Your task to perform on an android device: clear history in the chrome app Image 0: 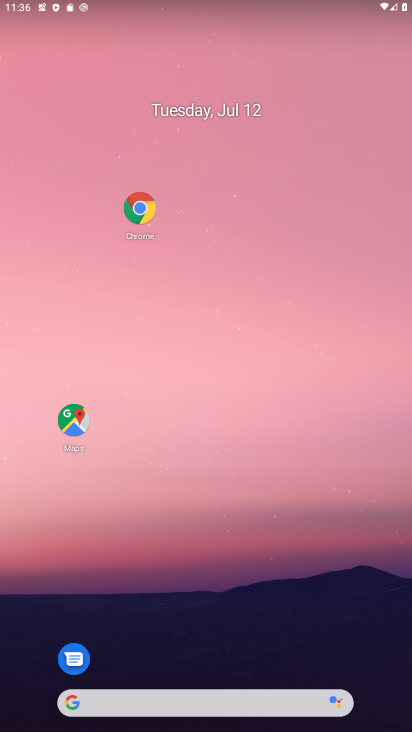
Step 0: drag from (275, 720) to (250, 2)
Your task to perform on an android device: clear history in the chrome app Image 1: 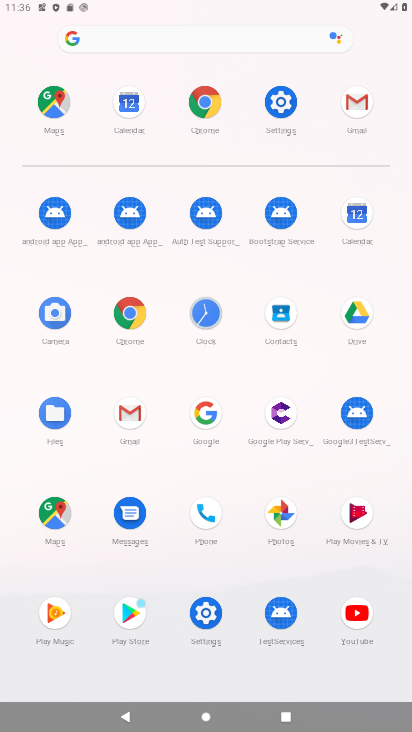
Step 1: click (124, 303)
Your task to perform on an android device: clear history in the chrome app Image 2: 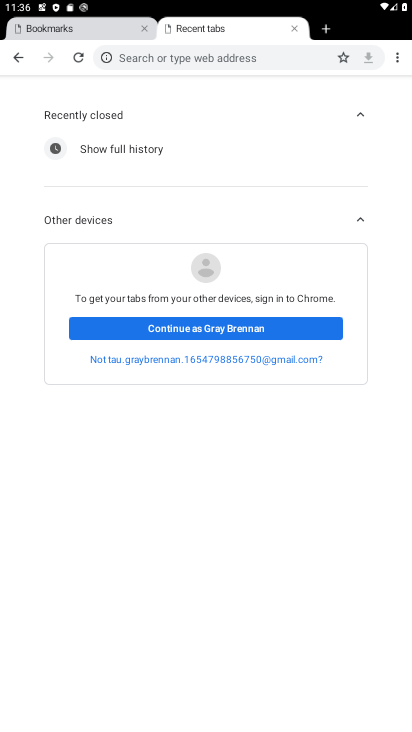
Step 2: drag from (393, 54) to (290, 177)
Your task to perform on an android device: clear history in the chrome app Image 3: 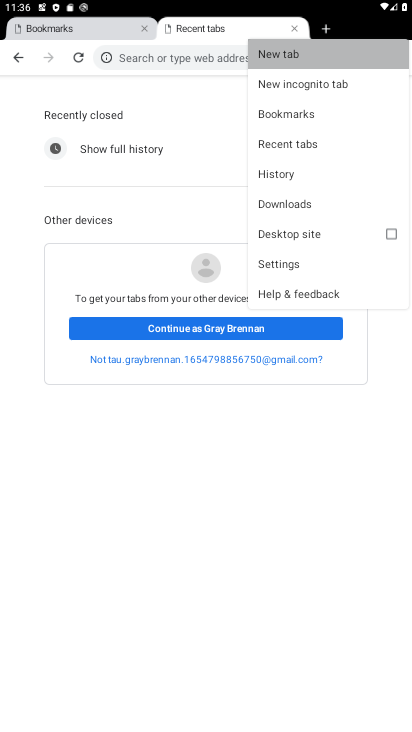
Step 3: drag from (393, 58) to (290, 177)
Your task to perform on an android device: clear history in the chrome app Image 4: 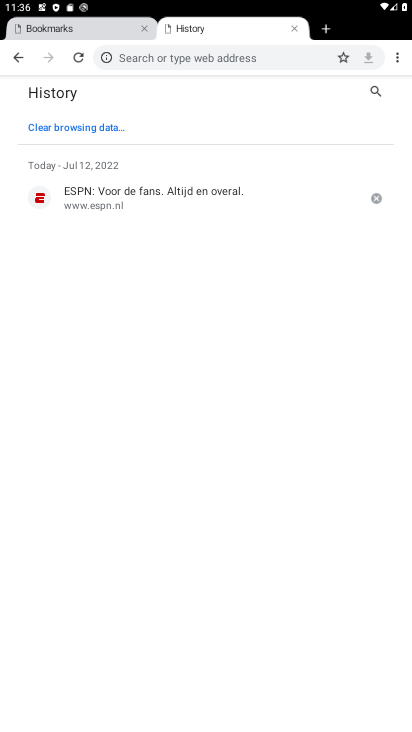
Step 4: click (114, 128)
Your task to perform on an android device: clear history in the chrome app Image 5: 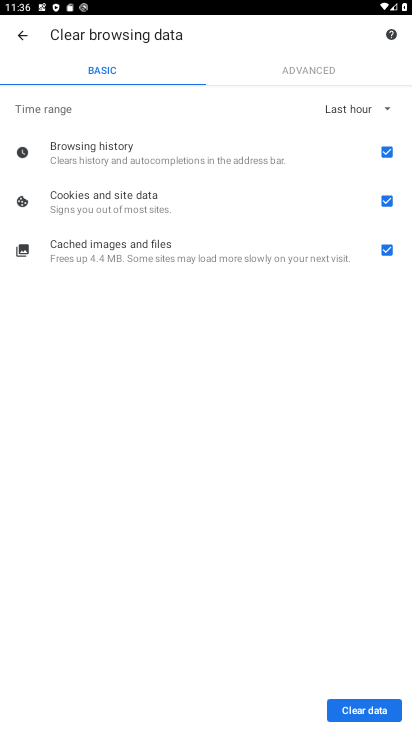
Step 5: click (380, 715)
Your task to perform on an android device: clear history in the chrome app Image 6: 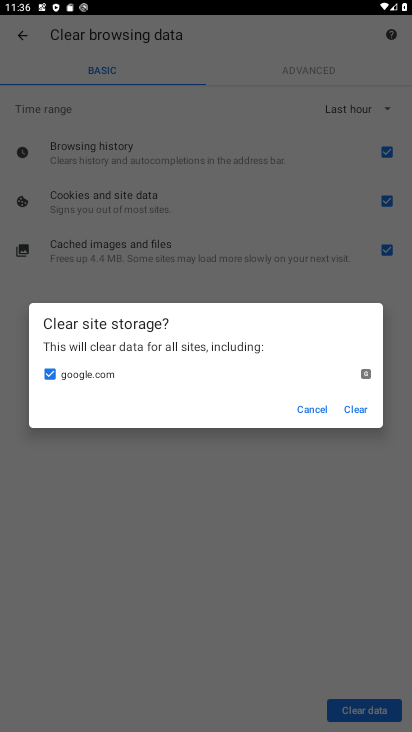
Step 6: click (352, 409)
Your task to perform on an android device: clear history in the chrome app Image 7: 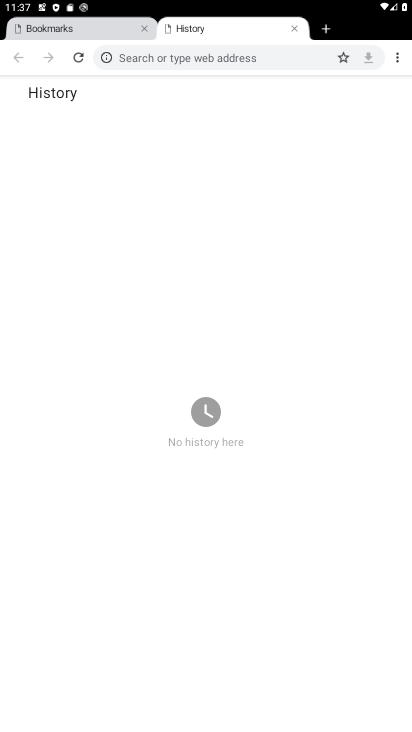
Step 7: task complete